Your task to perform on an android device: Show the shopping cart on walmart.com. Add logitech g pro to the cart on walmart.com, then select checkout. Image 0: 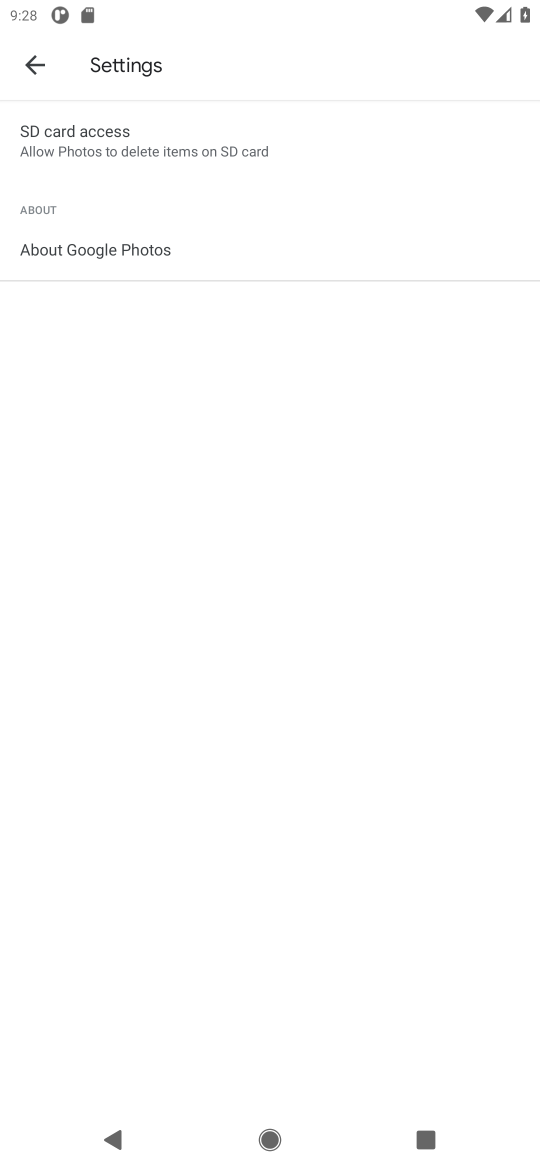
Step 0: press home button
Your task to perform on an android device: Show the shopping cart on walmart.com. Add logitech g pro to the cart on walmart.com, then select checkout. Image 1: 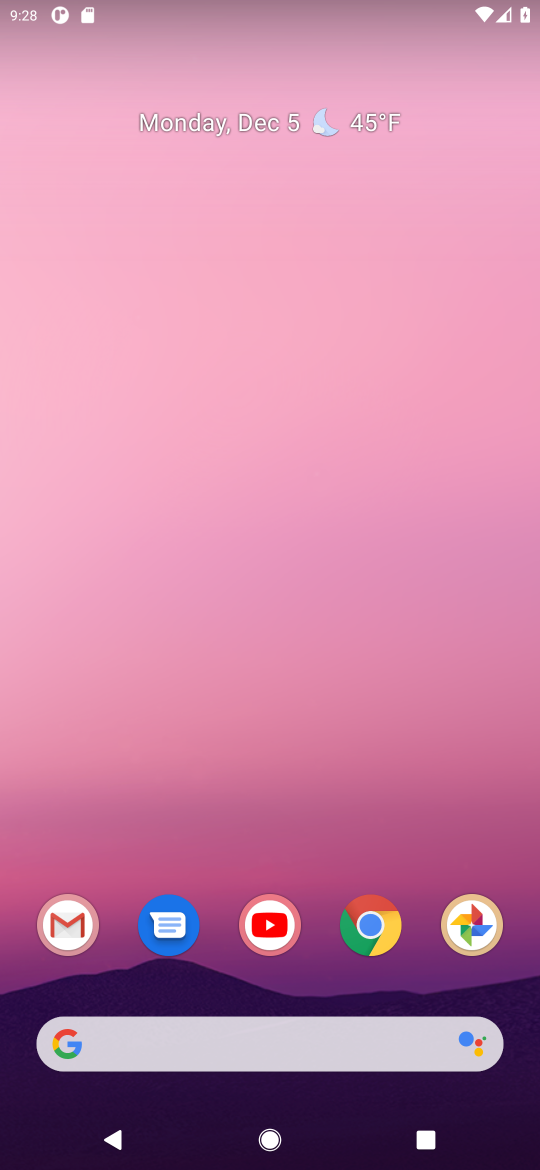
Step 1: click (385, 920)
Your task to perform on an android device: Show the shopping cart on walmart.com. Add logitech g pro to the cart on walmart.com, then select checkout. Image 2: 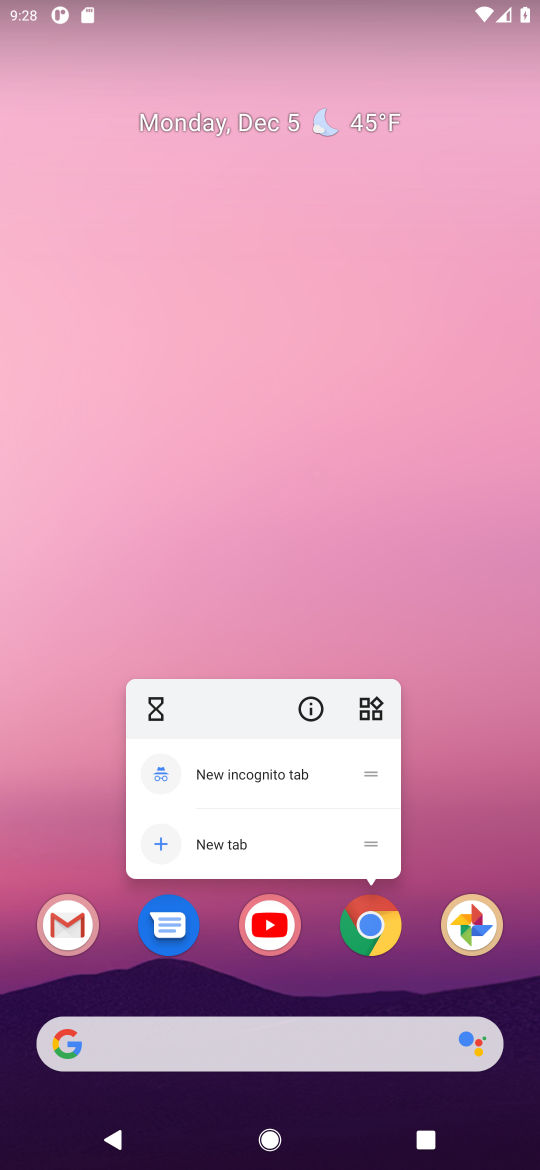
Step 2: click (368, 934)
Your task to perform on an android device: Show the shopping cart on walmart.com. Add logitech g pro to the cart on walmart.com, then select checkout. Image 3: 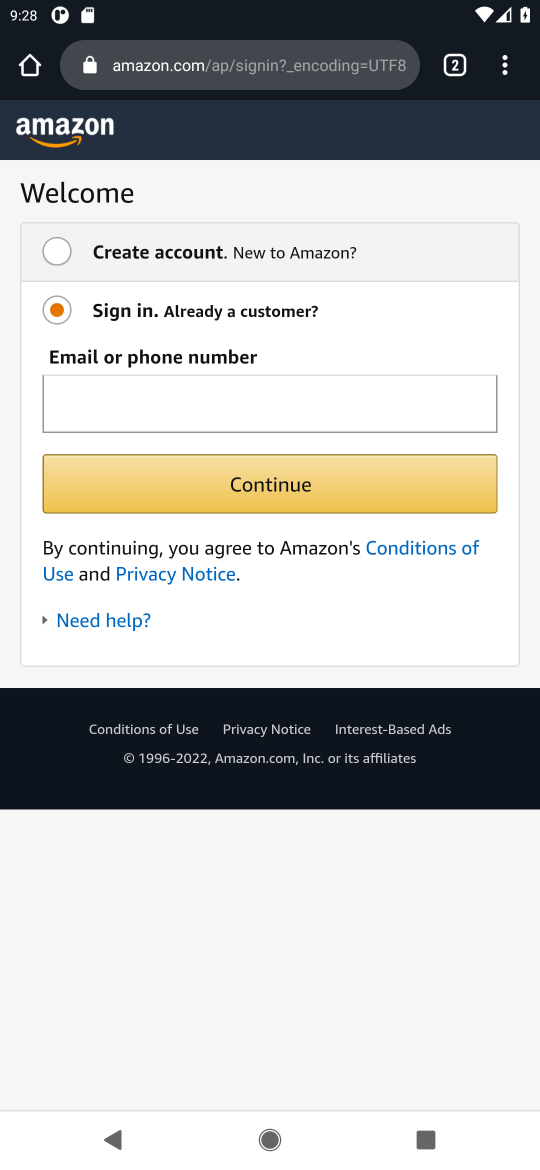
Step 3: click (198, 74)
Your task to perform on an android device: Show the shopping cart on walmart.com. Add logitech g pro to the cart on walmart.com, then select checkout. Image 4: 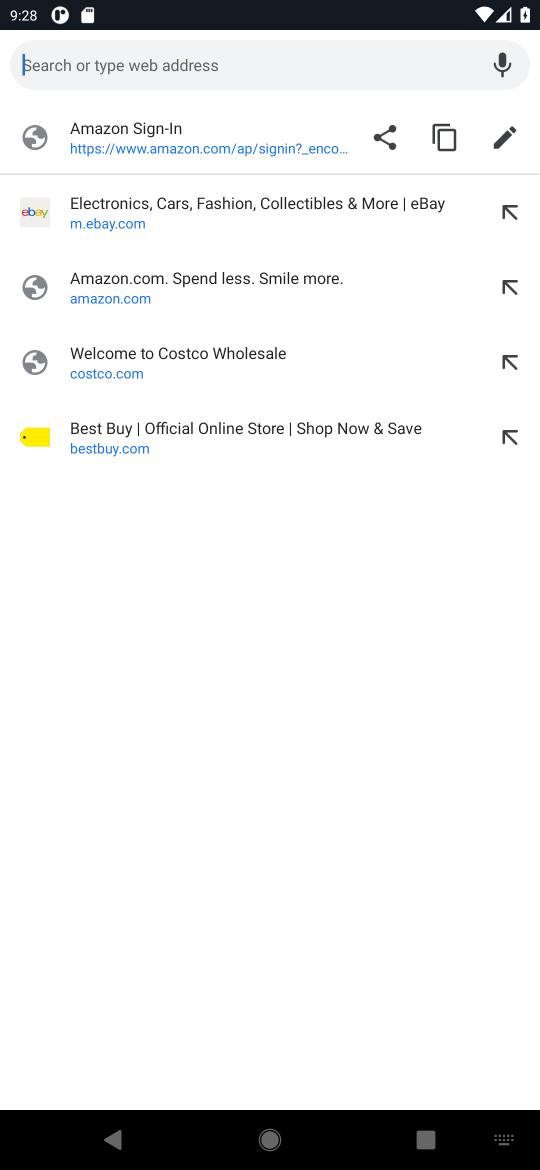
Step 4: type "walmart.com"
Your task to perform on an android device: Show the shopping cart on walmart.com. Add logitech g pro to the cart on walmart.com, then select checkout. Image 5: 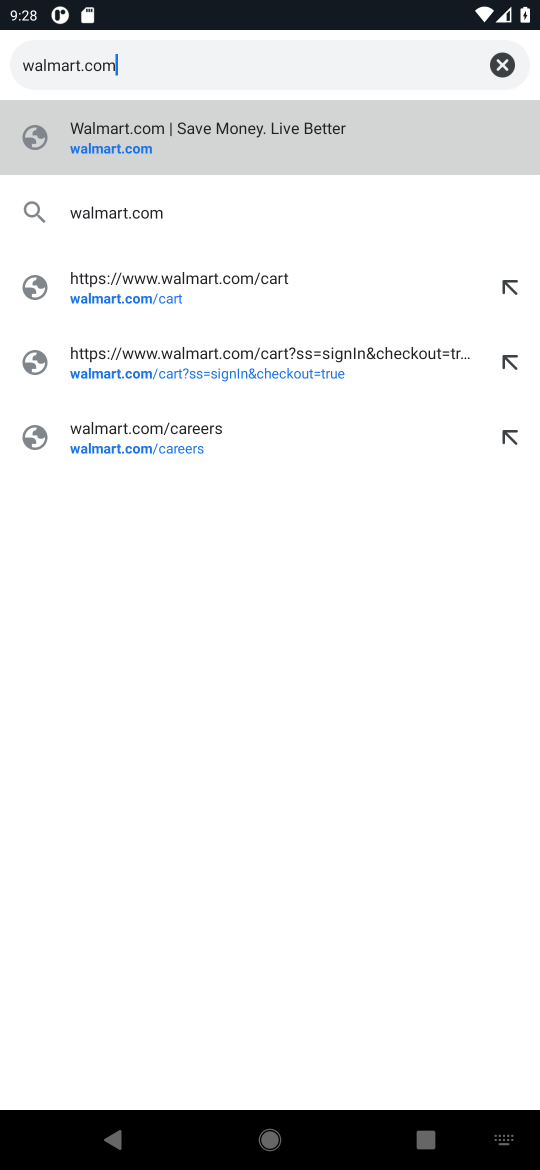
Step 5: click (100, 148)
Your task to perform on an android device: Show the shopping cart on walmart.com. Add logitech g pro to the cart on walmart.com, then select checkout. Image 6: 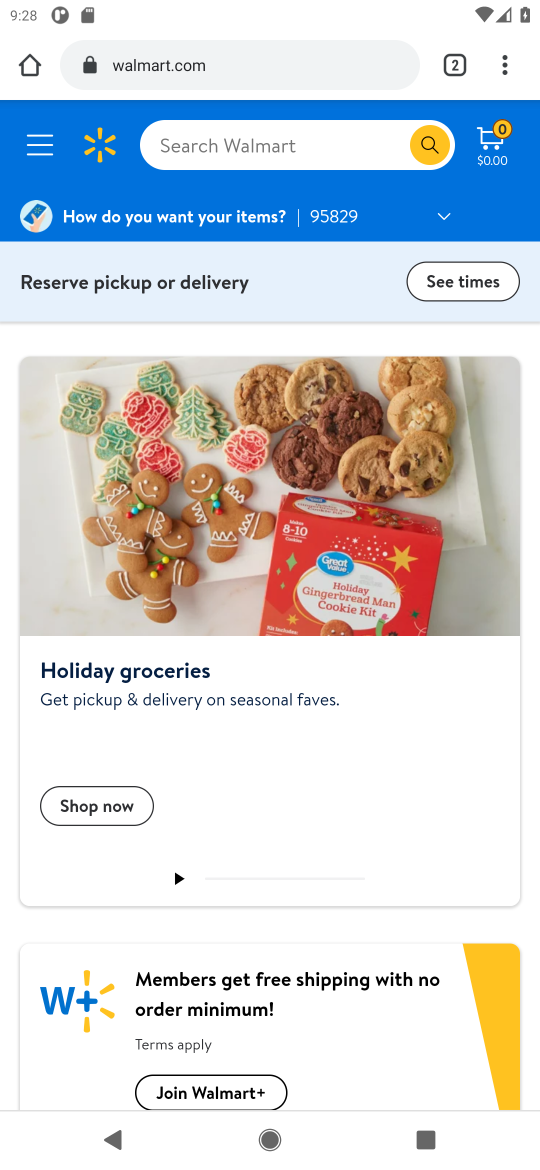
Step 6: click (488, 143)
Your task to perform on an android device: Show the shopping cart on walmart.com. Add logitech g pro to the cart on walmart.com, then select checkout. Image 7: 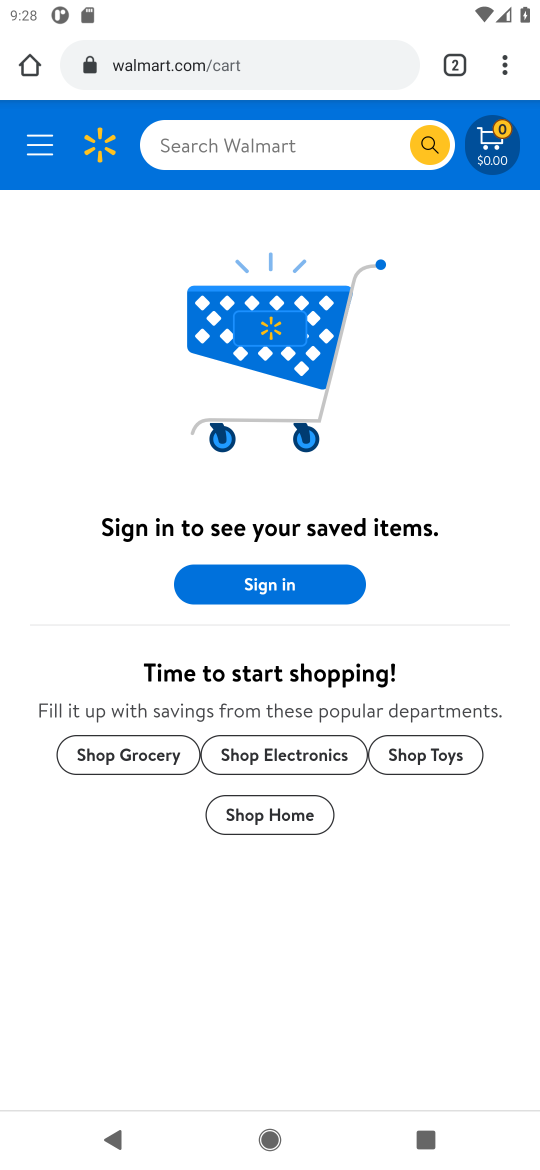
Step 7: click (242, 158)
Your task to perform on an android device: Show the shopping cart on walmart.com. Add logitech g pro to the cart on walmart.com, then select checkout. Image 8: 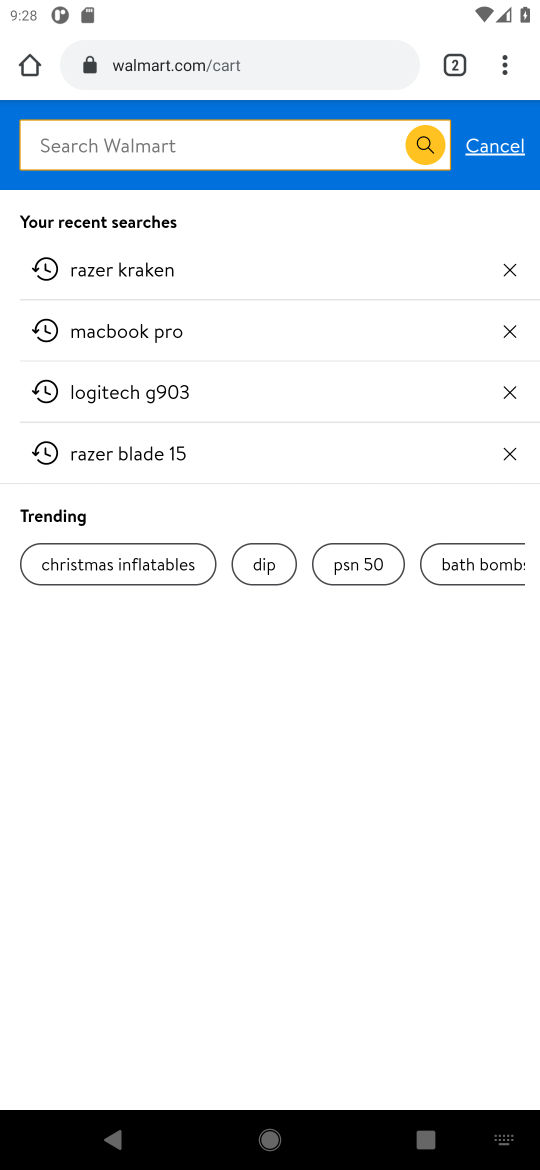
Step 8: type "logitech g pro"
Your task to perform on an android device: Show the shopping cart on walmart.com. Add logitech g pro to the cart on walmart.com, then select checkout. Image 9: 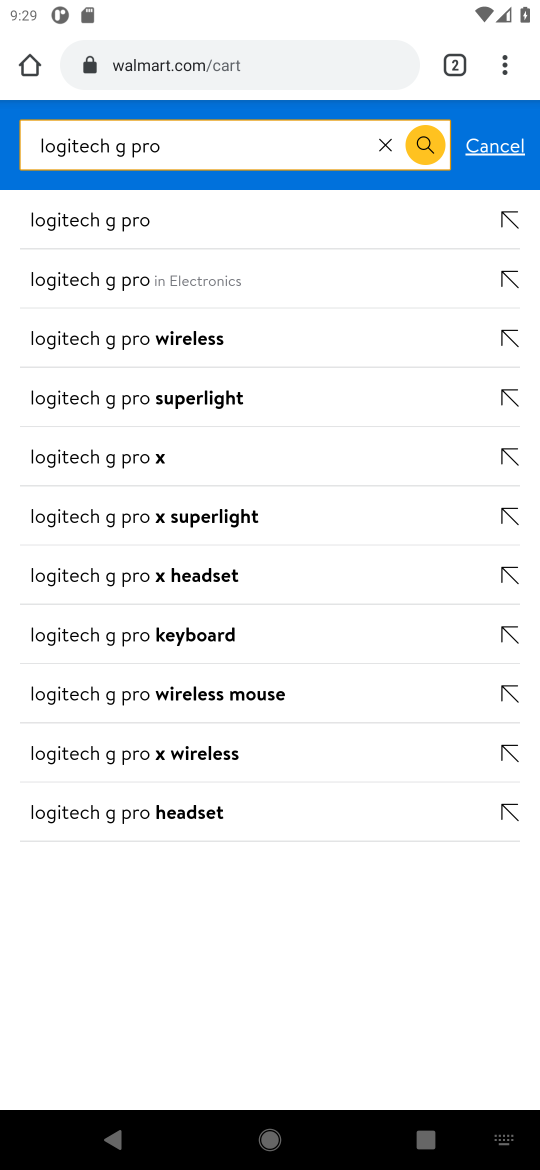
Step 9: click (113, 238)
Your task to perform on an android device: Show the shopping cart on walmart.com. Add logitech g pro to the cart on walmart.com, then select checkout. Image 10: 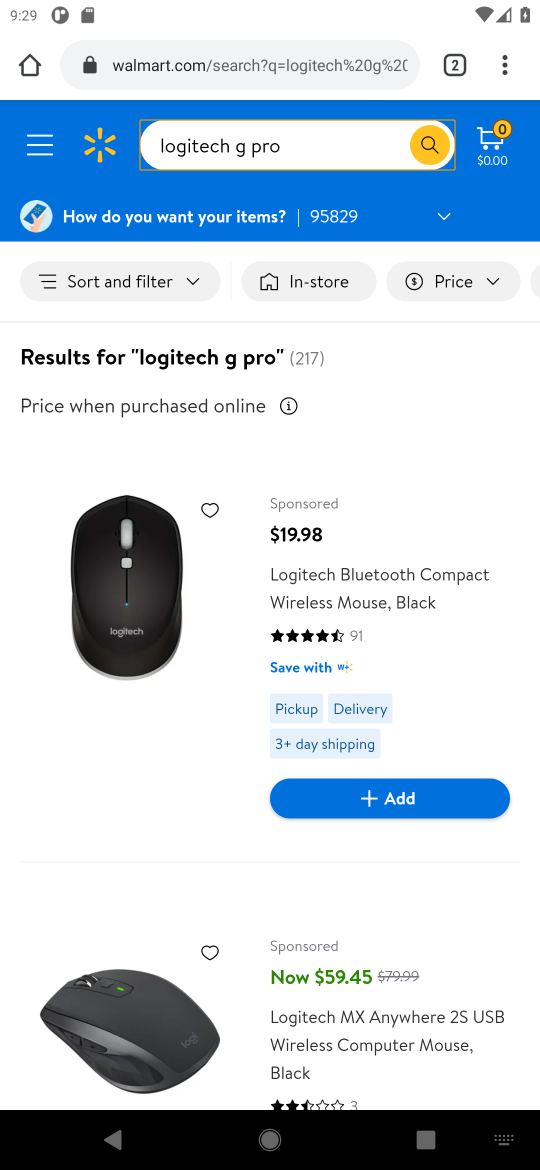
Step 10: drag from (292, 558) to (306, 350)
Your task to perform on an android device: Show the shopping cart on walmart.com. Add logitech g pro to the cart on walmart.com, then select checkout. Image 11: 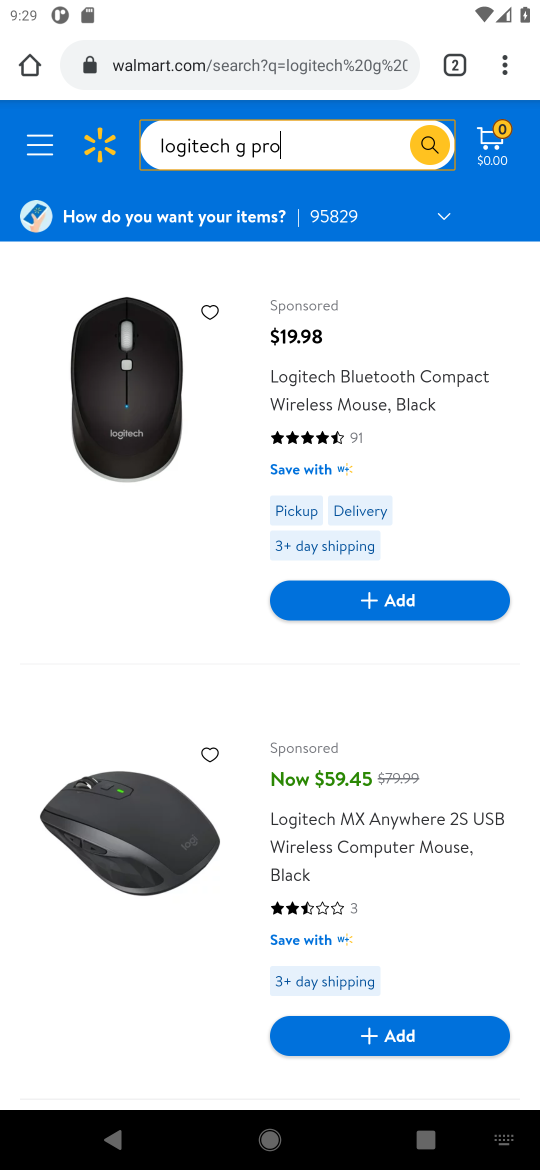
Step 11: drag from (277, 751) to (261, 468)
Your task to perform on an android device: Show the shopping cart on walmart.com. Add logitech g pro to the cart on walmart.com, then select checkout. Image 12: 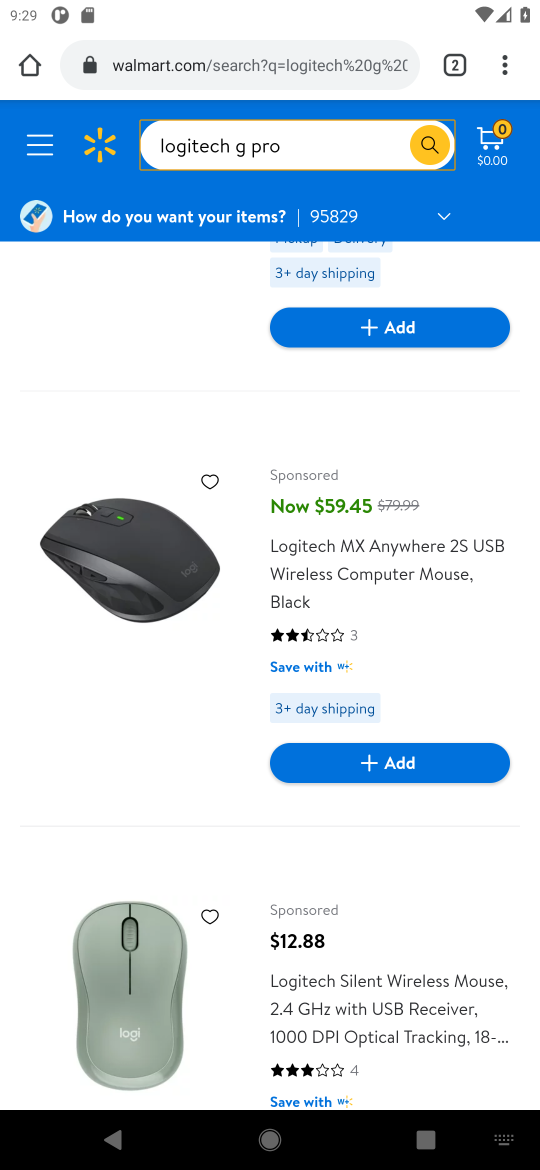
Step 12: drag from (249, 833) to (262, 427)
Your task to perform on an android device: Show the shopping cart on walmart.com. Add logitech g pro to the cart on walmart.com, then select checkout. Image 13: 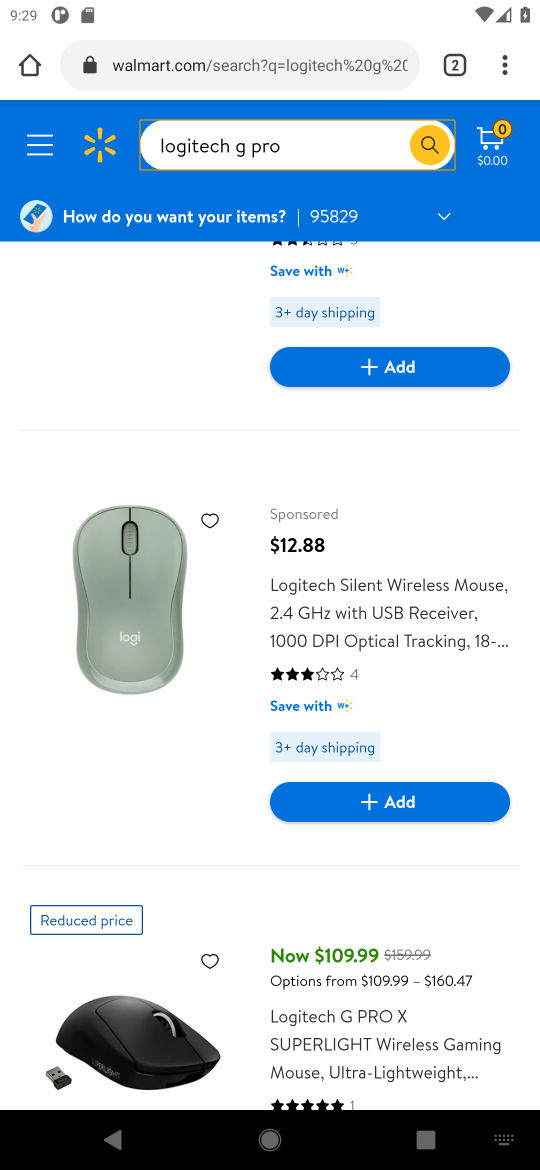
Step 13: drag from (238, 936) to (241, 486)
Your task to perform on an android device: Show the shopping cart on walmart.com. Add logitech g pro to the cart on walmart.com, then select checkout. Image 14: 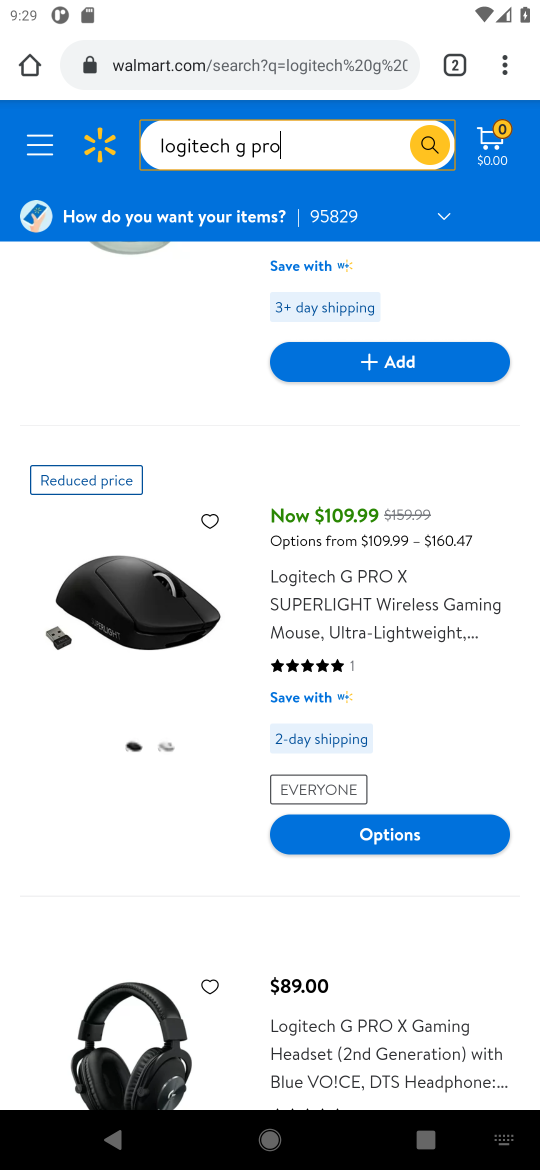
Step 14: click (377, 628)
Your task to perform on an android device: Show the shopping cart on walmart.com. Add logitech g pro to the cart on walmart.com, then select checkout. Image 15: 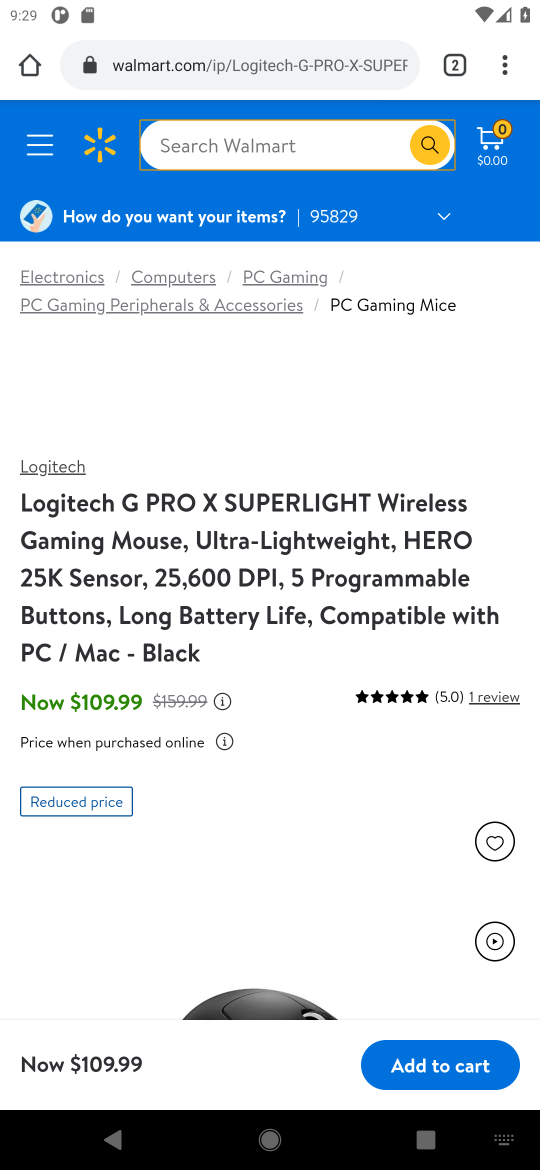
Step 15: click (432, 1075)
Your task to perform on an android device: Show the shopping cart on walmart.com. Add logitech g pro to the cart on walmart.com, then select checkout. Image 16: 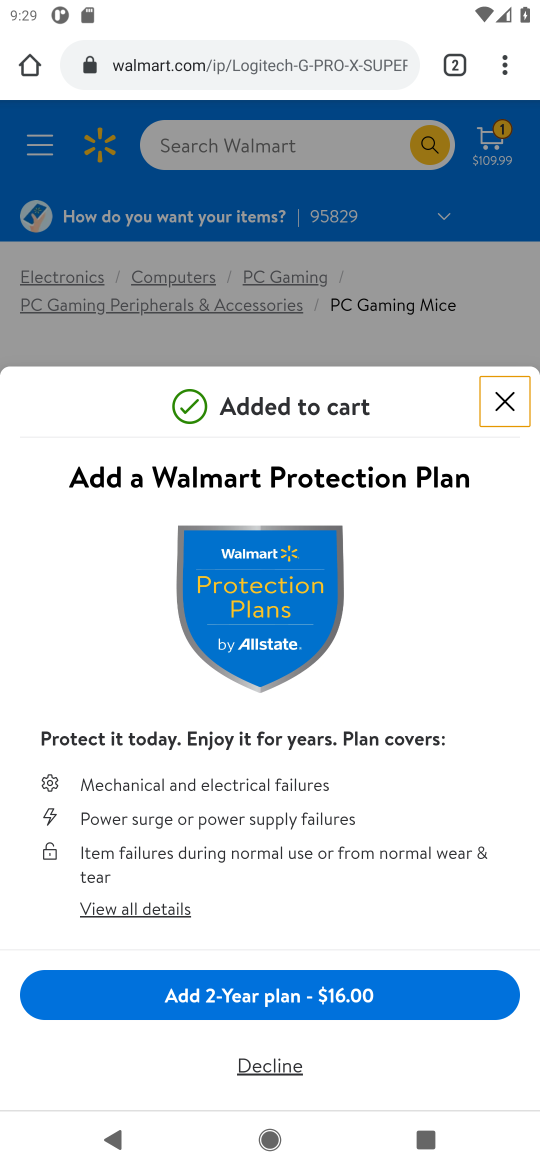
Step 16: click (507, 401)
Your task to perform on an android device: Show the shopping cart on walmart.com. Add logitech g pro to the cart on walmart.com, then select checkout. Image 17: 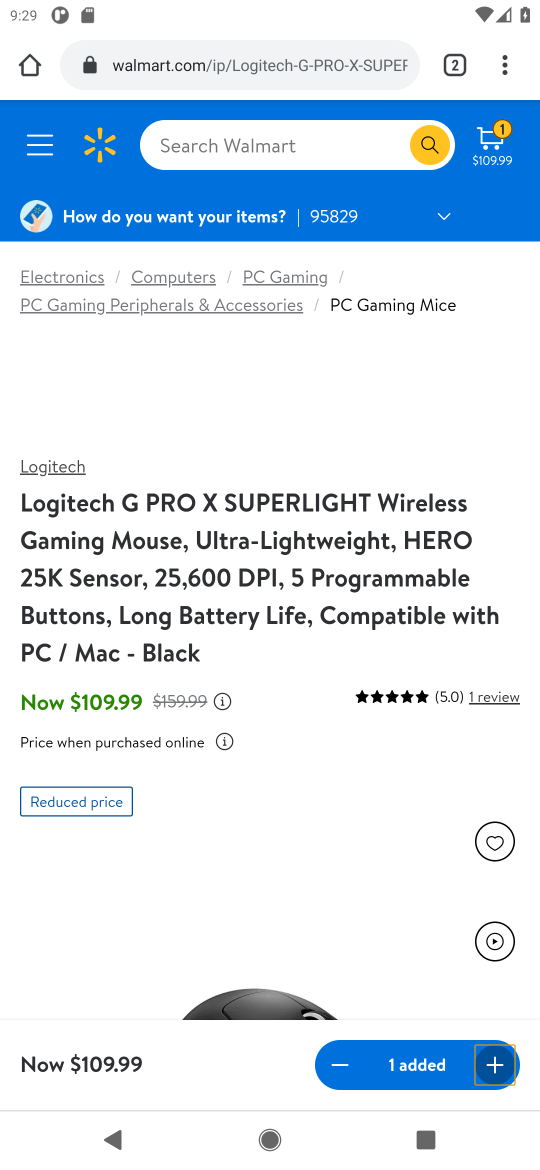
Step 17: click (493, 135)
Your task to perform on an android device: Show the shopping cart on walmart.com. Add logitech g pro to the cart on walmart.com, then select checkout. Image 18: 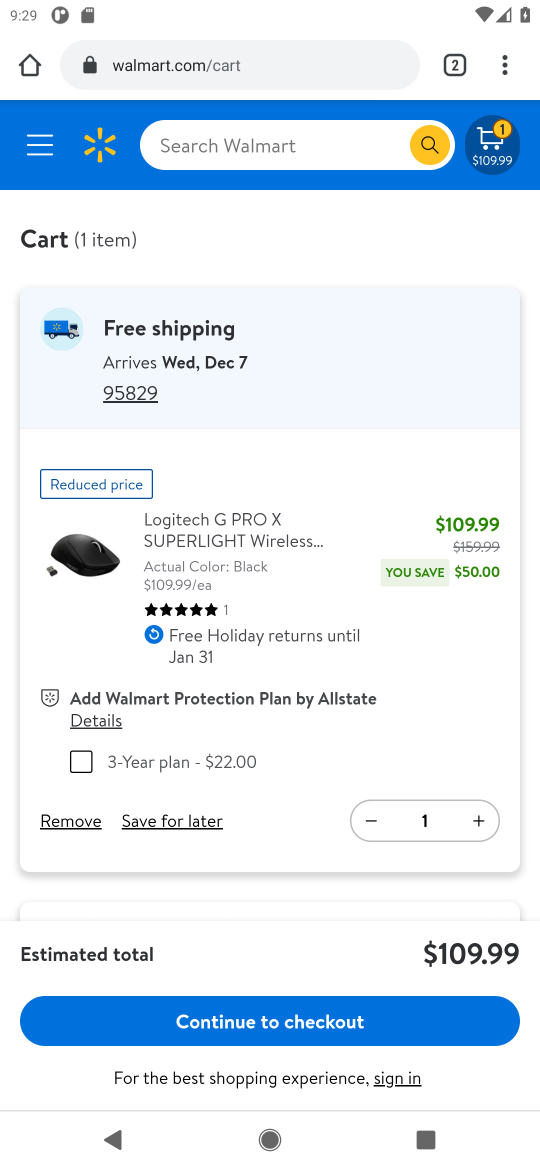
Step 18: click (215, 1019)
Your task to perform on an android device: Show the shopping cart on walmart.com. Add logitech g pro to the cart on walmart.com, then select checkout. Image 19: 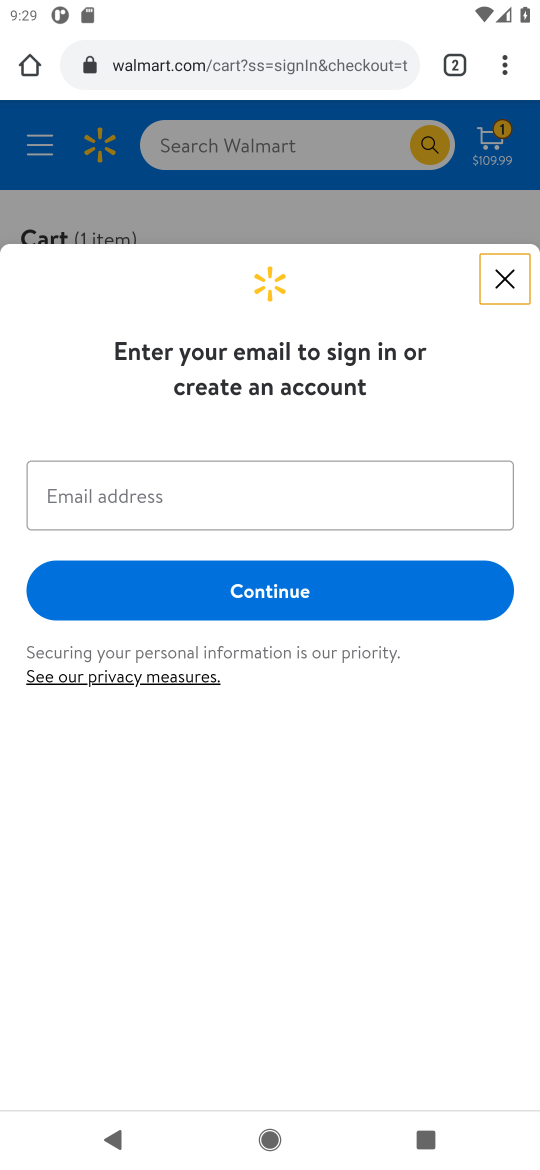
Step 19: task complete